Your task to perform on an android device: turn pop-ups off in chrome Image 0: 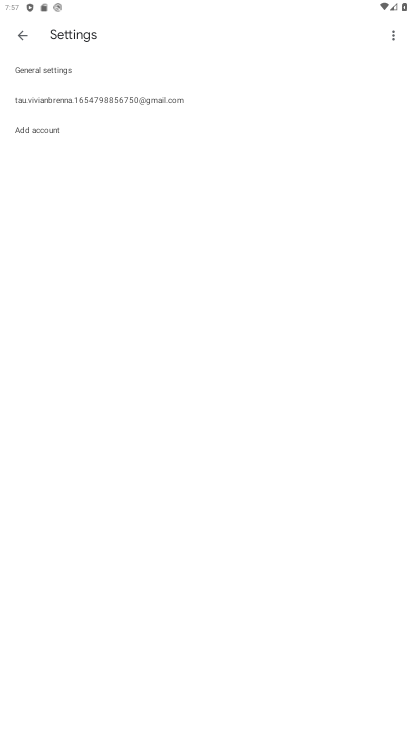
Step 0: press home button
Your task to perform on an android device: turn pop-ups off in chrome Image 1: 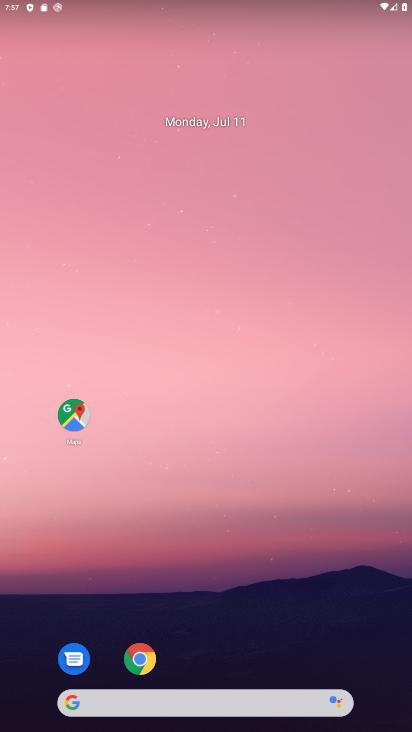
Step 1: click (142, 657)
Your task to perform on an android device: turn pop-ups off in chrome Image 2: 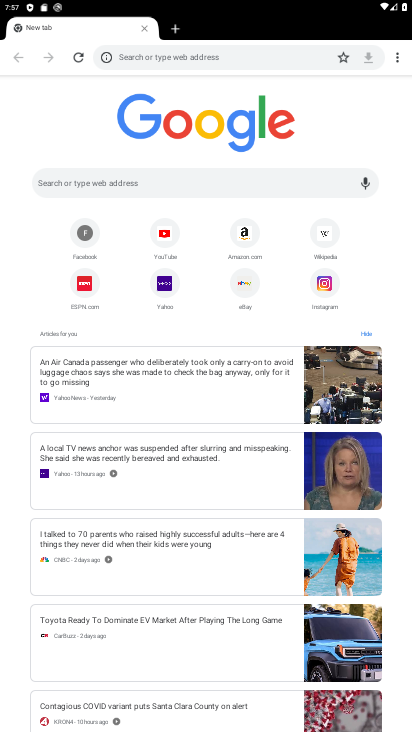
Step 2: click (397, 54)
Your task to perform on an android device: turn pop-ups off in chrome Image 3: 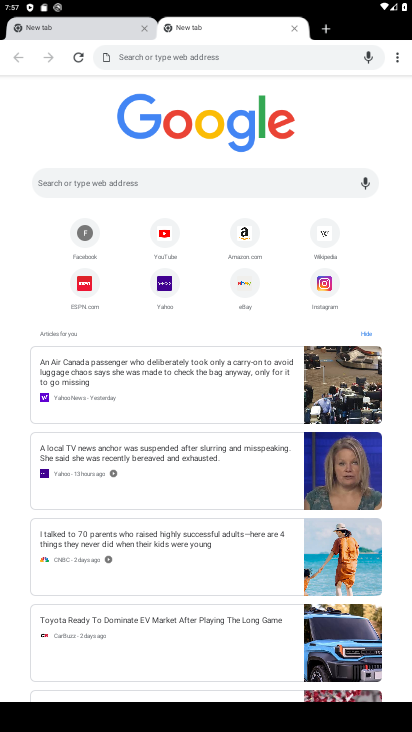
Step 3: click (396, 52)
Your task to perform on an android device: turn pop-ups off in chrome Image 4: 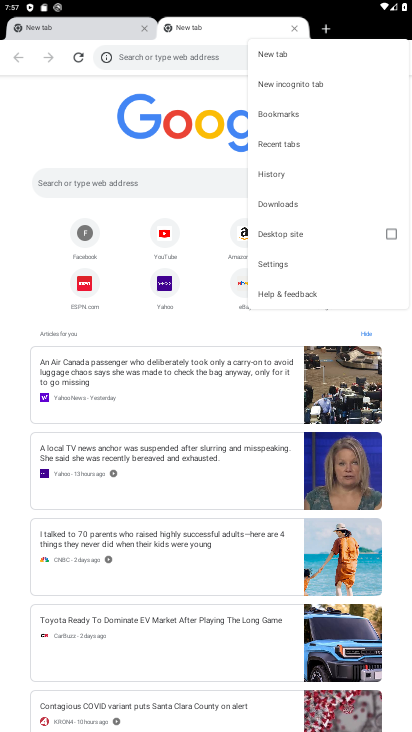
Step 4: click (395, 57)
Your task to perform on an android device: turn pop-ups off in chrome Image 5: 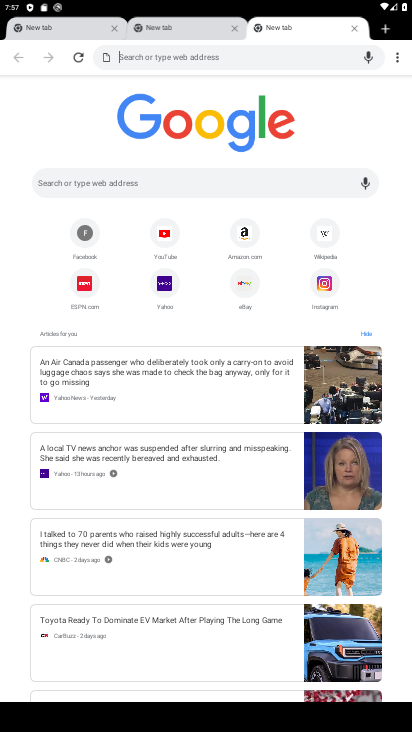
Step 5: click (392, 52)
Your task to perform on an android device: turn pop-ups off in chrome Image 6: 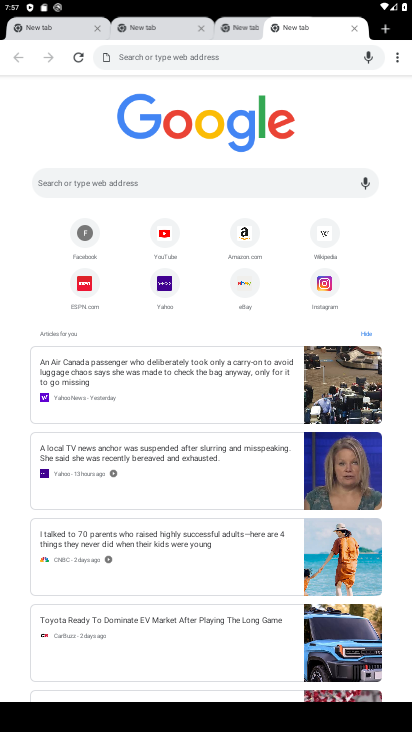
Step 6: click (393, 53)
Your task to perform on an android device: turn pop-ups off in chrome Image 7: 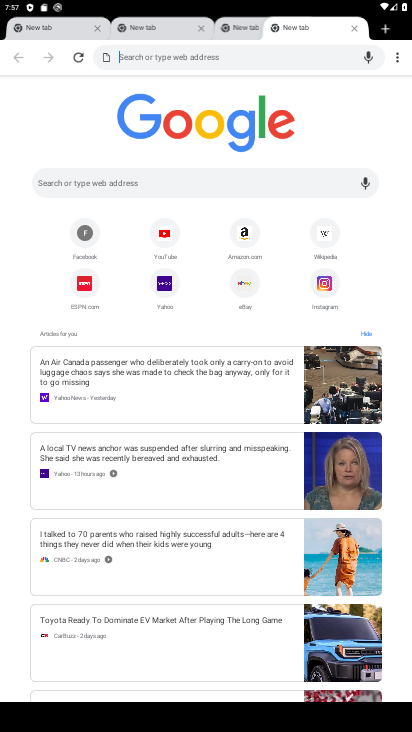
Step 7: task complete